Your task to perform on an android device: Open Chrome and go to the settings page Image 0: 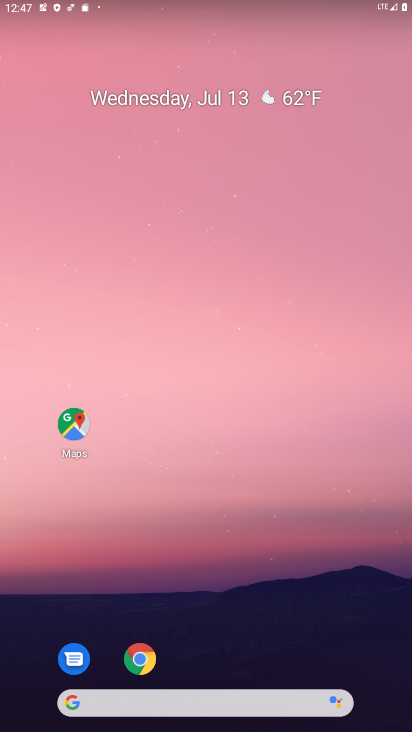
Step 0: click (198, 214)
Your task to perform on an android device: Open Chrome and go to the settings page Image 1: 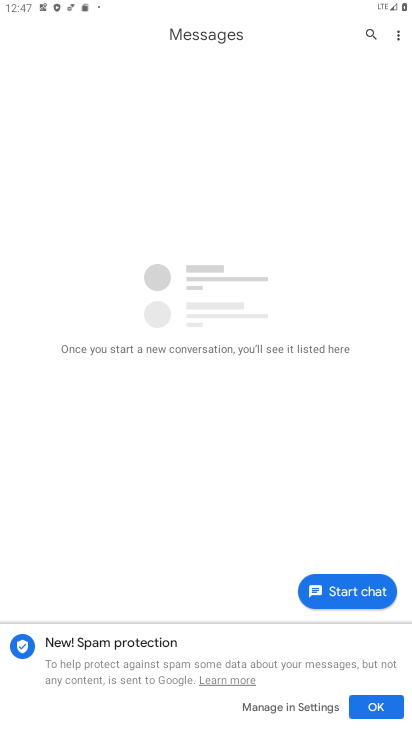
Step 1: click (138, 661)
Your task to perform on an android device: Open Chrome and go to the settings page Image 2: 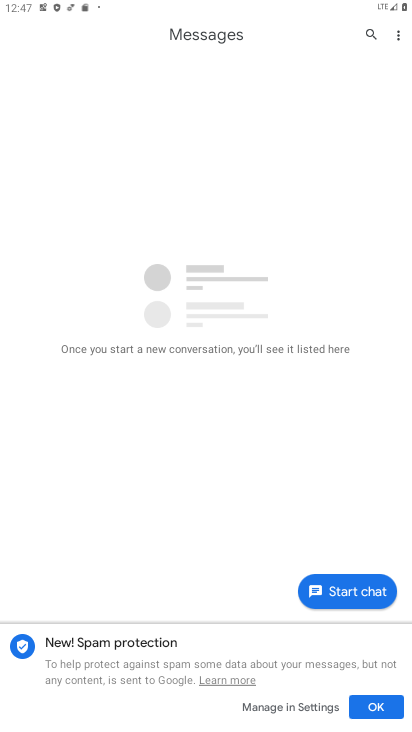
Step 2: press home button
Your task to perform on an android device: Open Chrome and go to the settings page Image 3: 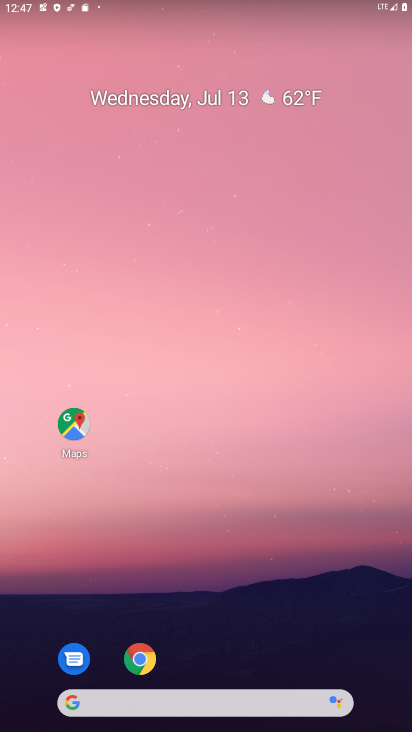
Step 3: click (142, 660)
Your task to perform on an android device: Open Chrome and go to the settings page Image 4: 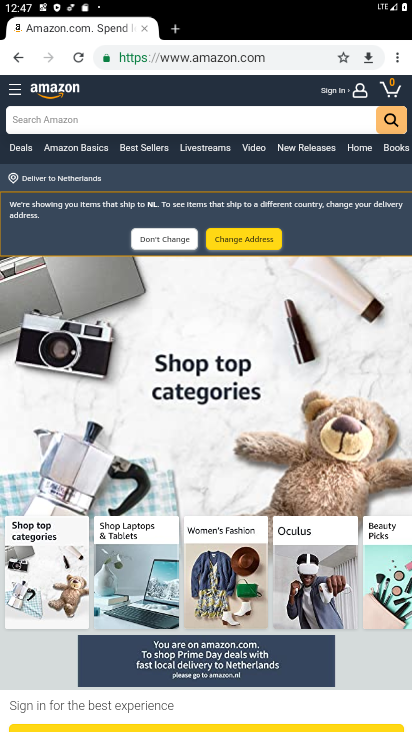
Step 4: click (402, 63)
Your task to perform on an android device: Open Chrome and go to the settings page Image 5: 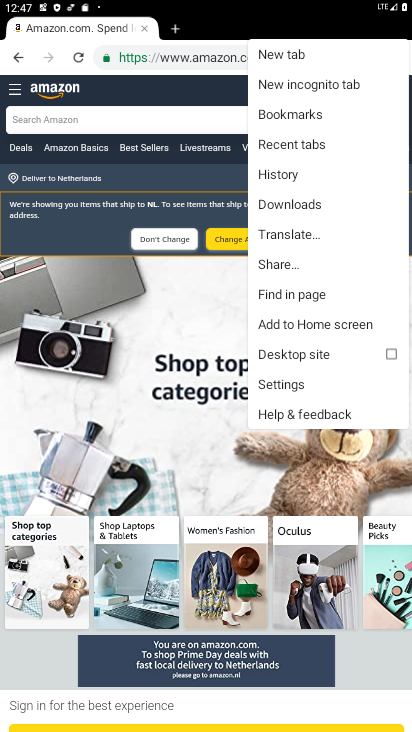
Step 5: click (285, 381)
Your task to perform on an android device: Open Chrome and go to the settings page Image 6: 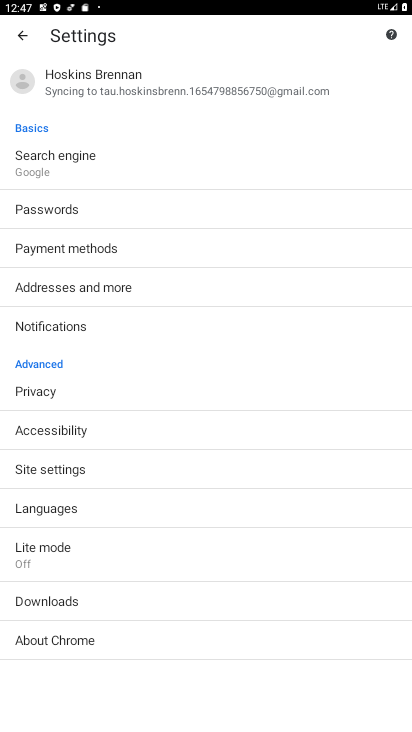
Step 6: task complete